Your task to perform on an android device: Go to accessibility settings Image 0: 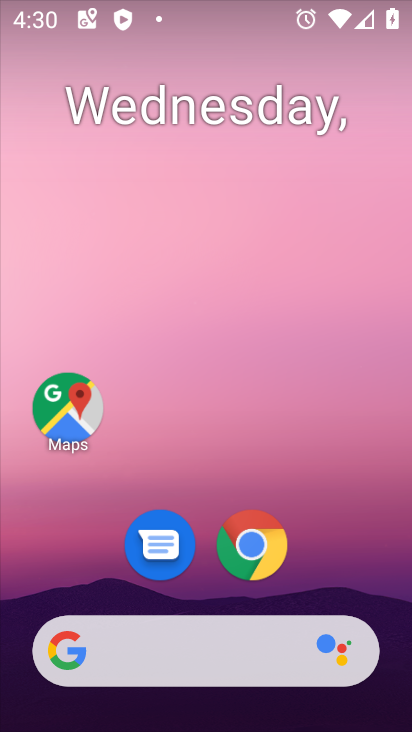
Step 0: drag from (342, 570) to (350, 257)
Your task to perform on an android device: Go to accessibility settings Image 1: 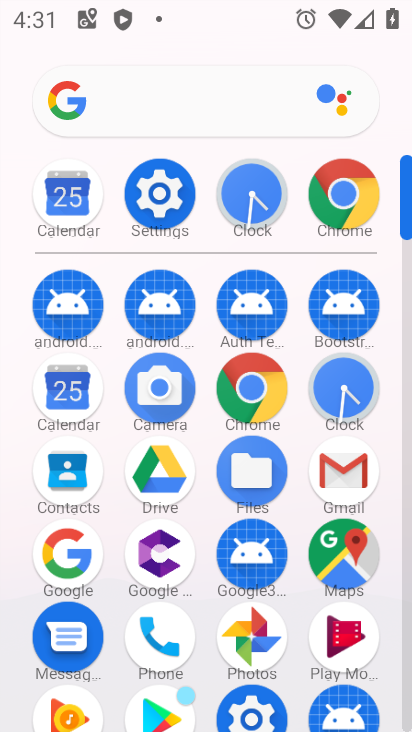
Step 1: click (173, 221)
Your task to perform on an android device: Go to accessibility settings Image 2: 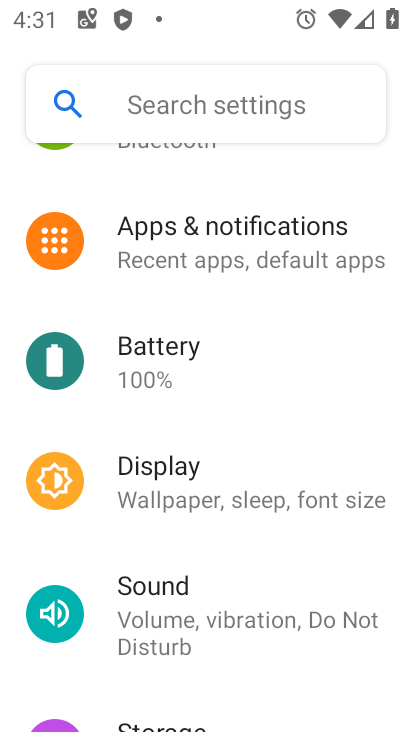
Step 2: drag from (325, 513) to (297, 358)
Your task to perform on an android device: Go to accessibility settings Image 3: 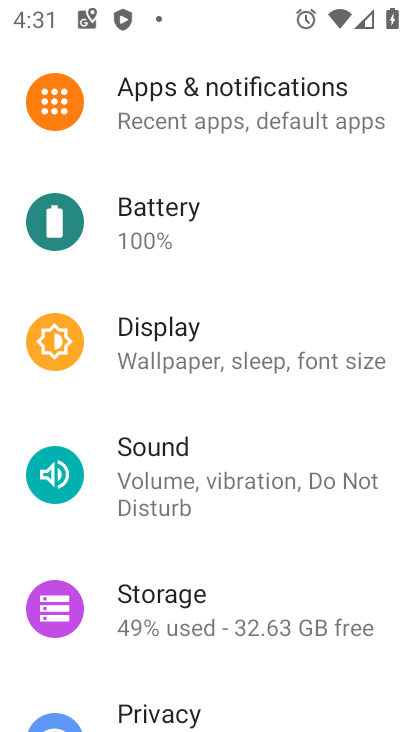
Step 3: drag from (315, 567) to (350, 379)
Your task to perform on an android device: Go to accessibility settings Image 4: 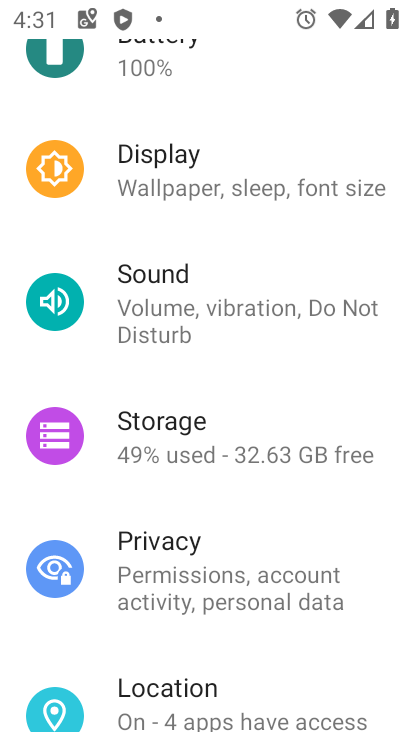
Step 4: drag from (365, 640) to (353, 491)
Your task to perform on an android device: Go to accessibility settings Image 5: 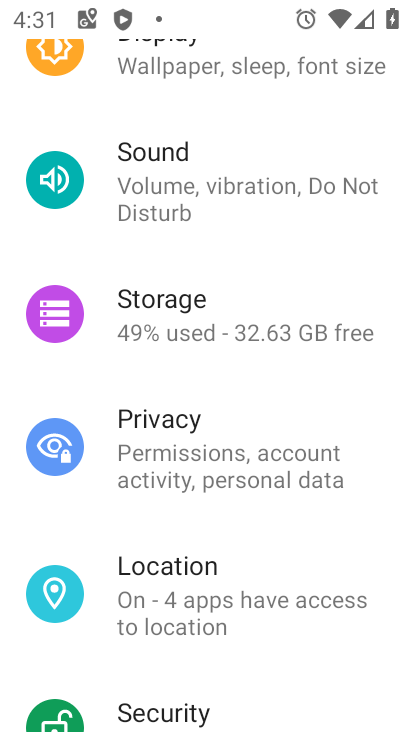
Step 5: drag from (347, 662) to (346, 504)
Your task to perform on an android device: Go to accessibility settings Image 6: 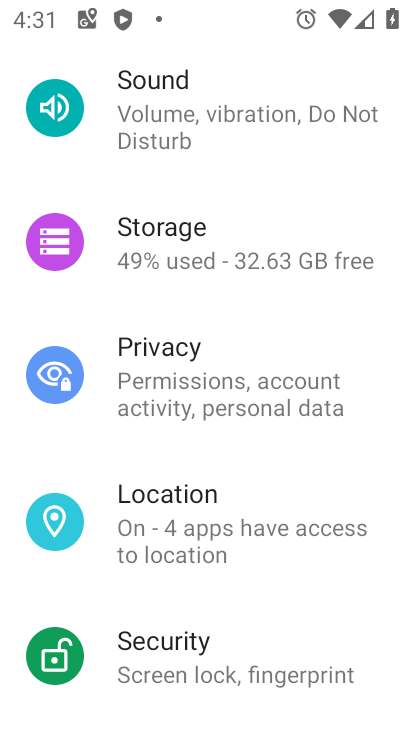
Step 6: drag from (345, 626) to (363, 460)
Your task to perform on an android device: Go to accessibility settings Image 7: 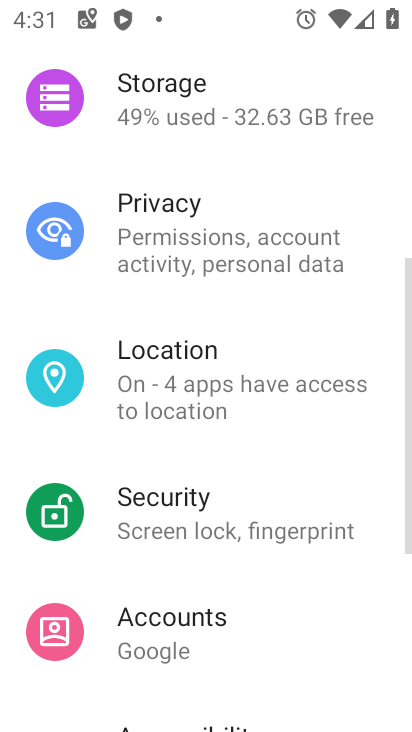
Step 7: drag from (351, 652) to (371, 441)
Your task to perform on an android device: Go to accessibility settings Image 8: 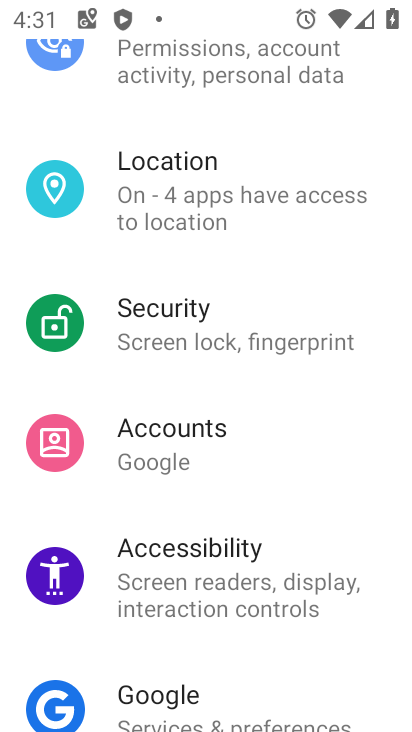
Step 8: click (314, 600)
Your task to perform on an android device: Go to accessibility settings Image 9: 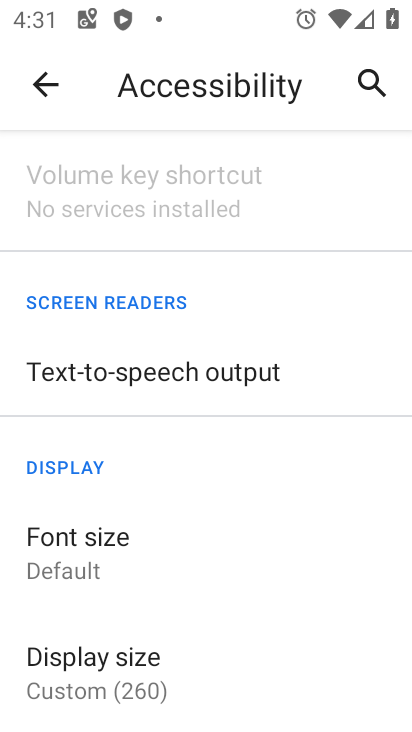
Step 9: task complete